Your task to perform on an android device: show emergency info Image 0: 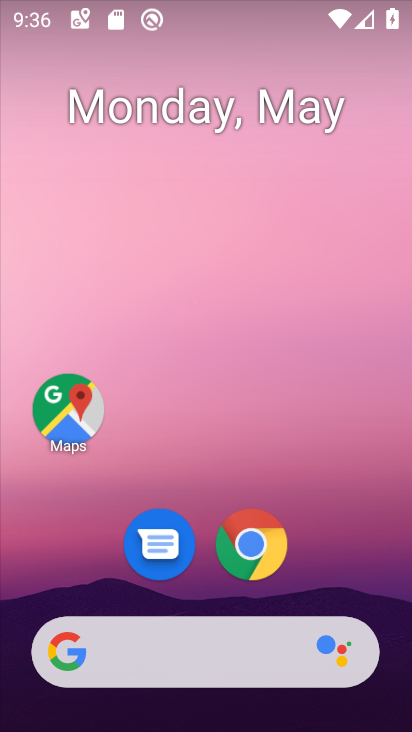
Step 0: drag from (392, 554) to (320, 211)
Your task to perform on an android device: show emergency info Image 1: 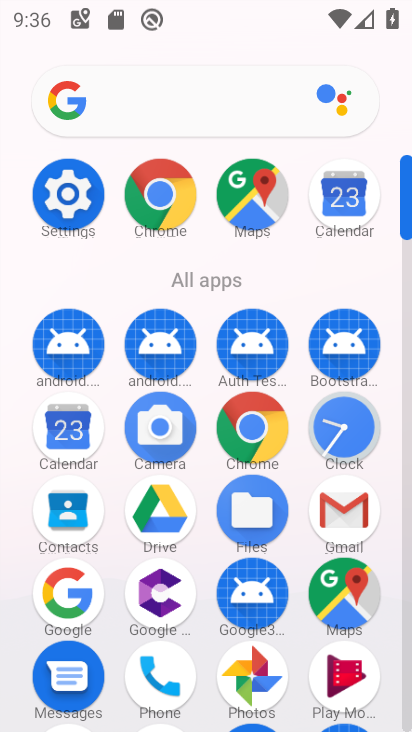
Step 1: click (80, 212)
Your task to perform on an android device: show emergency info Image 2: 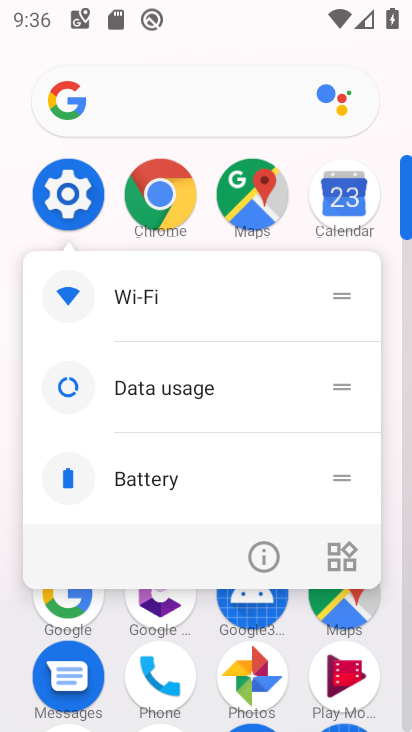
Step 2: click (80, 207)
Your task to perform on an android device: show emergency info Image 3: 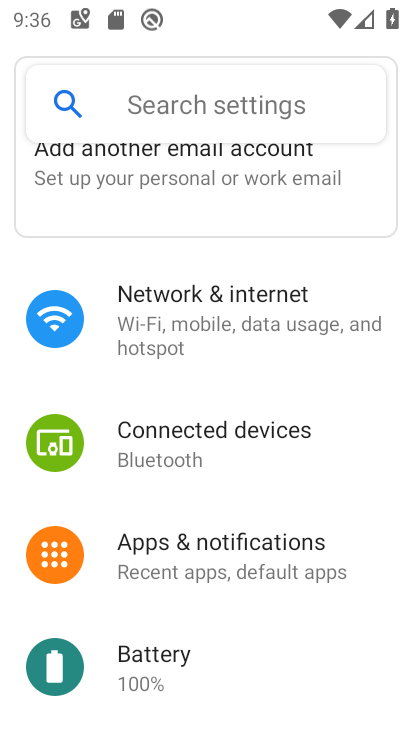
Step 3: drag from (295, 649) to (283, 269)
Your task to perform on an android device: show emergency info Image 4: 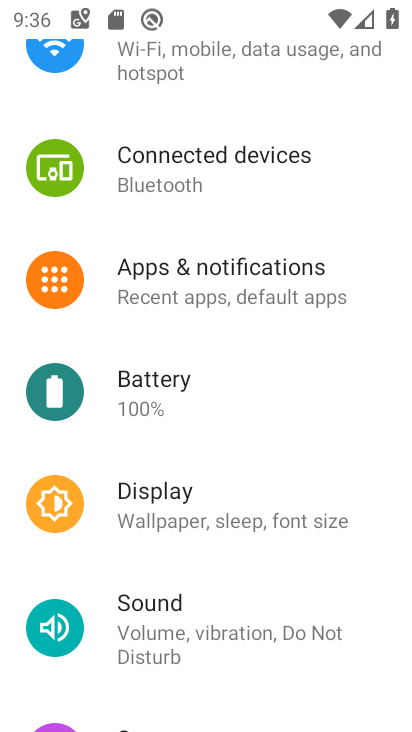
Step 4: drag from (250, 677) to (250, 283)
Your task to perform on an android device: show emergency info Image 5: 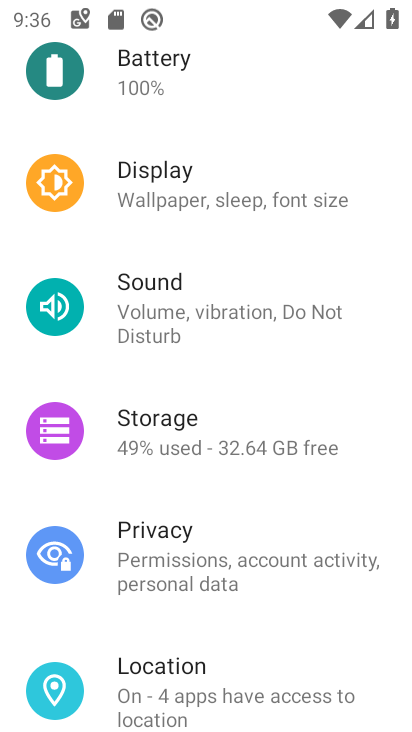
Step 5: drag from (280, 686) to (284, 221)
Your task to perform on an android device: show emergency info Image 6: 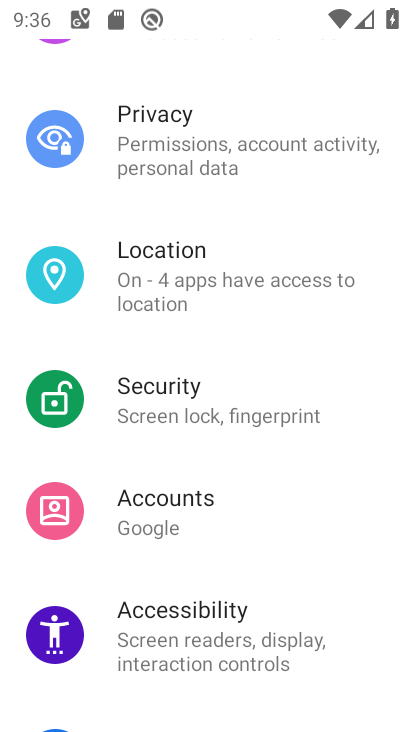
Step 6: drag from (276, 697) to (266, 192)
Your task to perform on an android device: show emergency info Image 7: 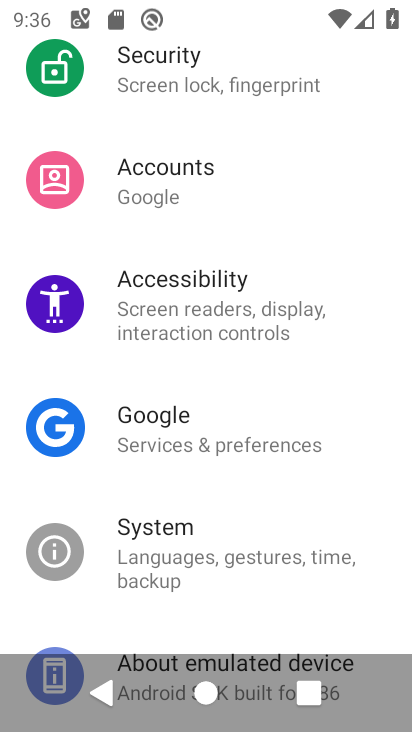
Step 7: drag from (261, 573) to (261, 171)
Your task to perform on an android device: show emergency info Image 8: 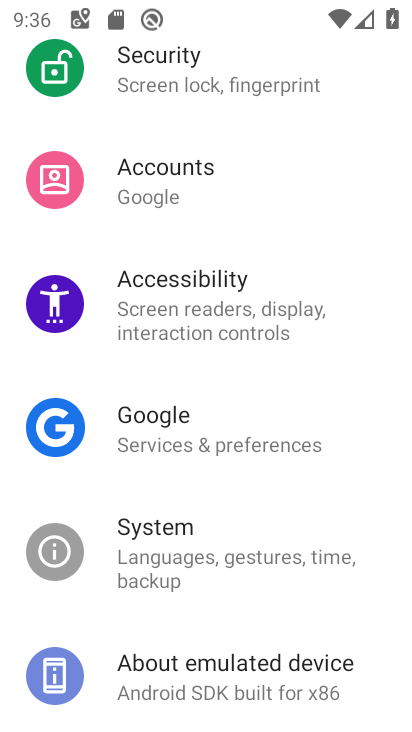
Step 8: click (225, 656)
Your task to perform on an android device: show emergency info Image 9: 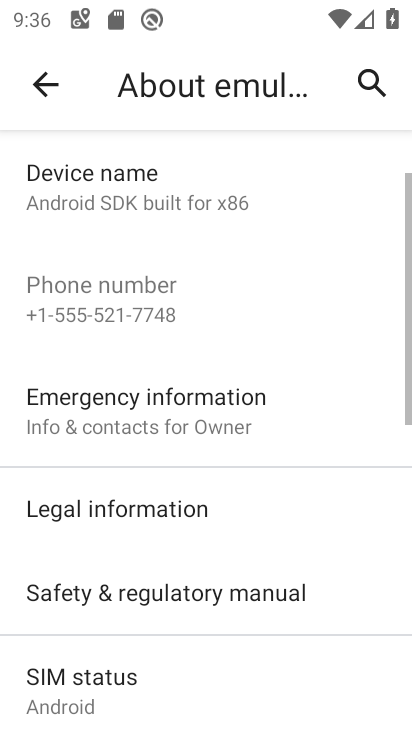
Step 9: click (182, 414)
Your task to perform on an android device: show emergency info Image 10: 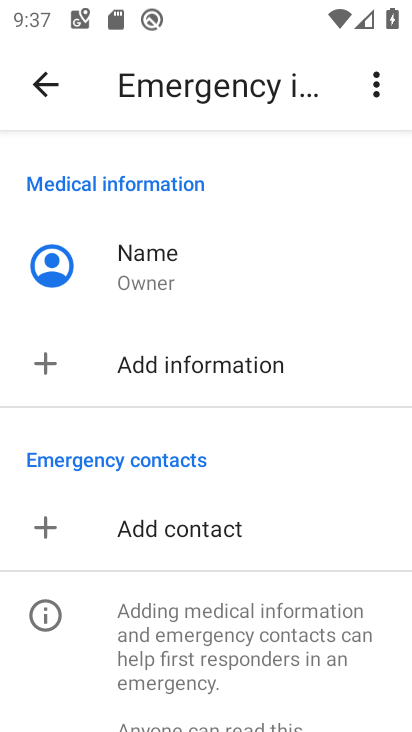
Step 10: task complete